Your task to perform on an android device: open wifi settings Image 0: 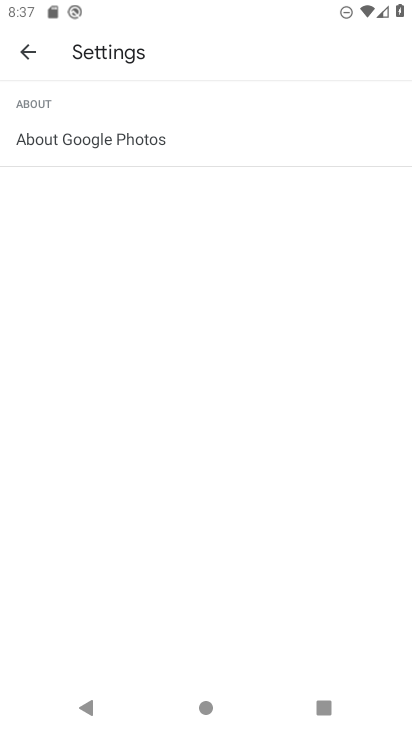
Step 0: drag from (251, 483) to (260, 114)
Your task to perform on an android device: open wifi settings Image 1: 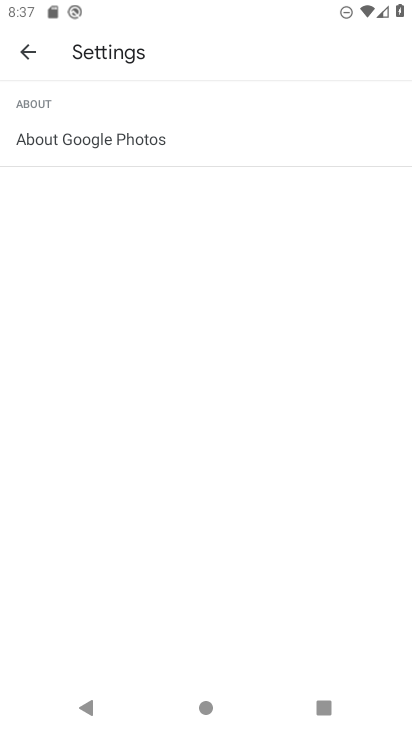
Step 1: press home button
Your task to perform on an android device: open wifi settings Image 2: 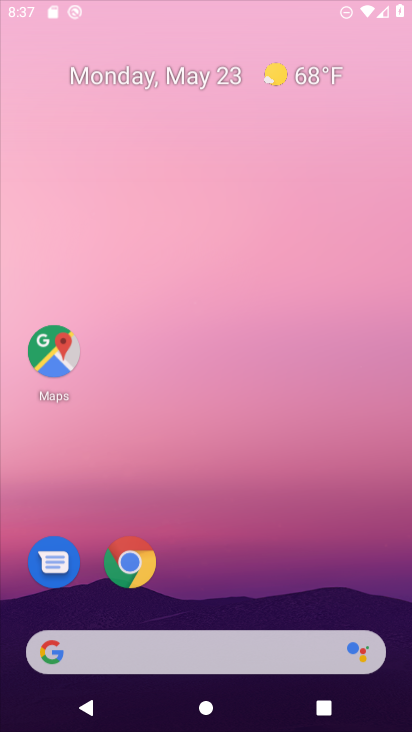
Step 2: drag from (165, 626) to (208, 88)
Your task to perform on an android device: open wifi settings Image 3: 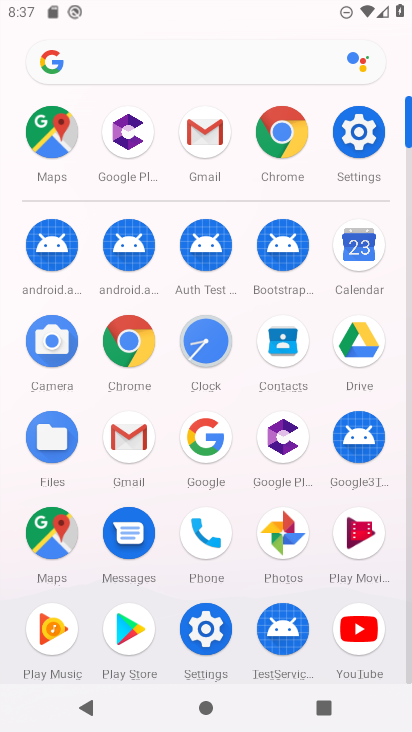
Step 3: click (361, 140)
Your task to perform on an android device: open wifi settings Image 4: 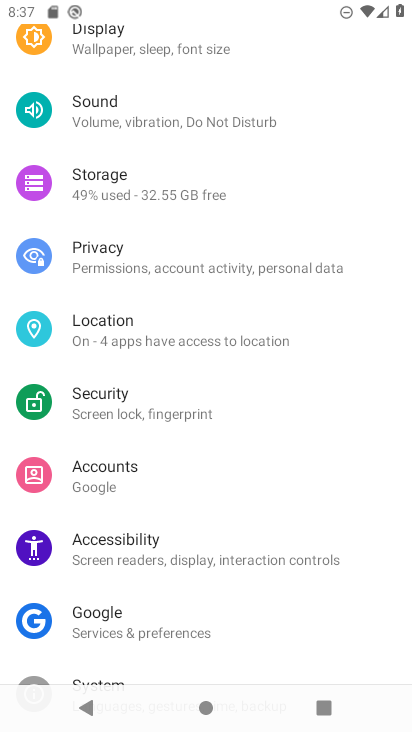
Step 4: drag from (123, 128) to (375, 724)
Your task to perform on an android device: open wifi settings Image 5: 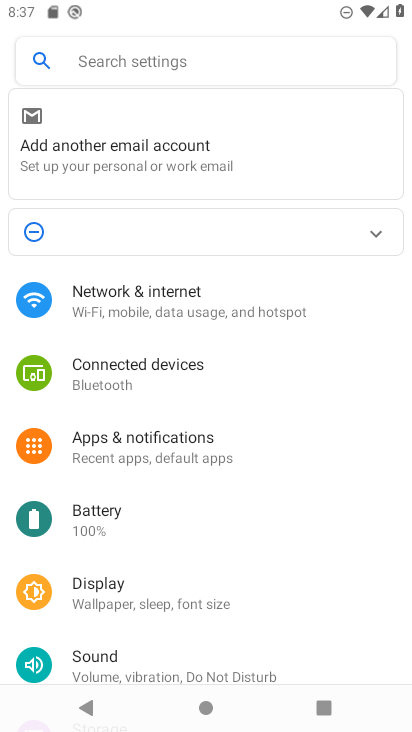
Step 5: click (136, 315)
Your task to perform on an android device: open wifi settings Image 6: 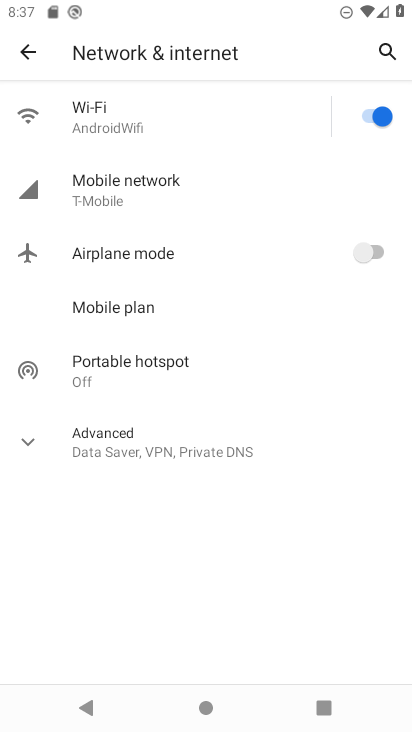
Step 6: click (233, 125)
Your task to perform on an android device: open wifi settings Image 7: 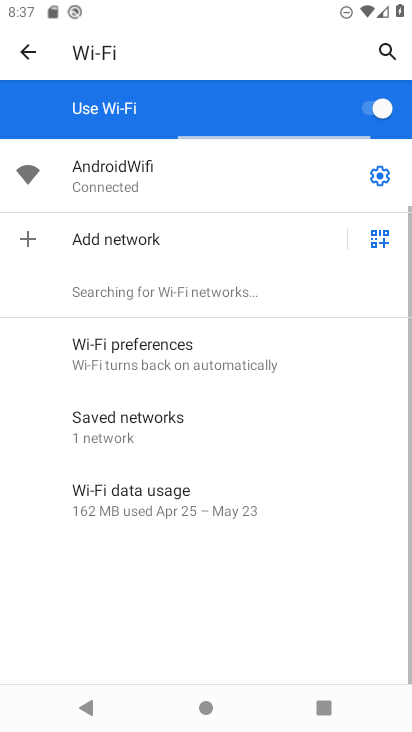
Step 7: task complete